Your task to perform on an android device: Search for "alienware area 51" on costco.com, select the first entry, add it to the cart, then select checkout. Image 0: 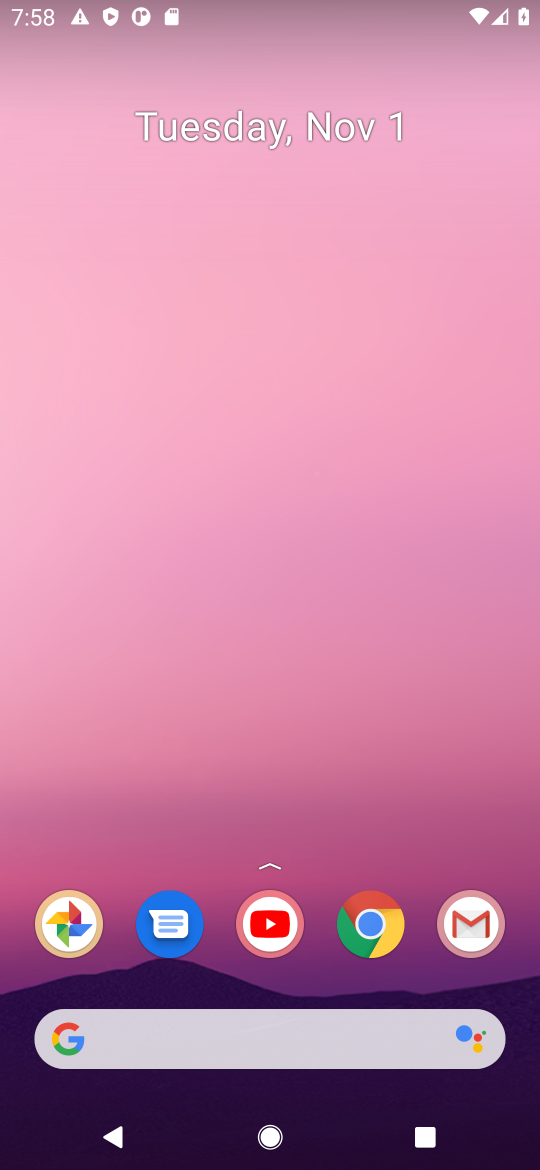
Step 0: click (93, 1035)
Your task to perform on an android device: Search for "alienware area 51" on costco.com, select the first entry, add it to the cart, then select checkout. Image 1: 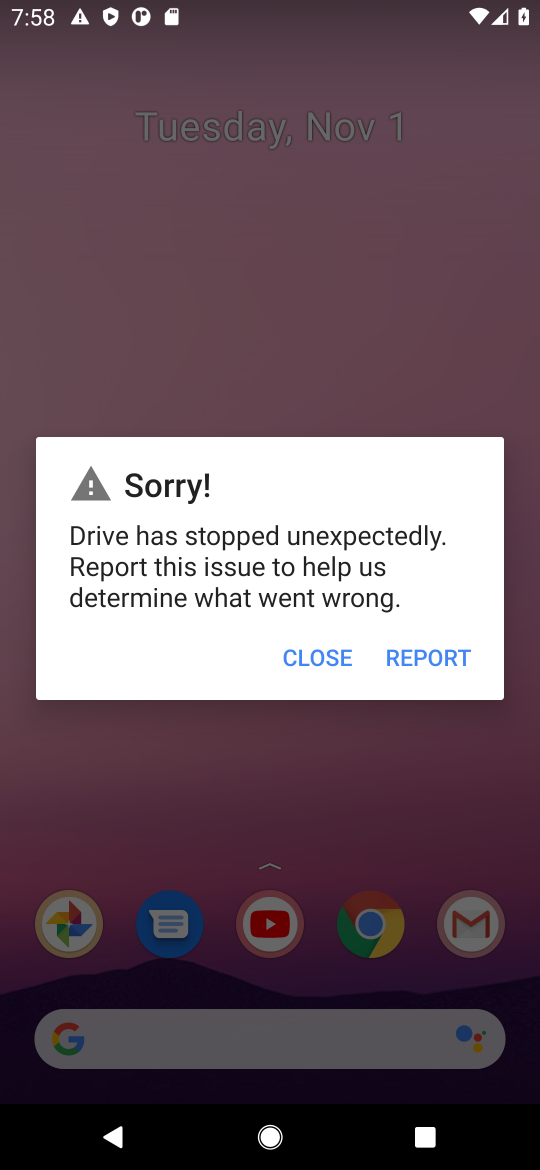
Step 1: press home button
Your task to perform on an android device: Search for "alienware area 51" on costco.com, select the first entry, add it to the cart, then select checkout. Image 2: 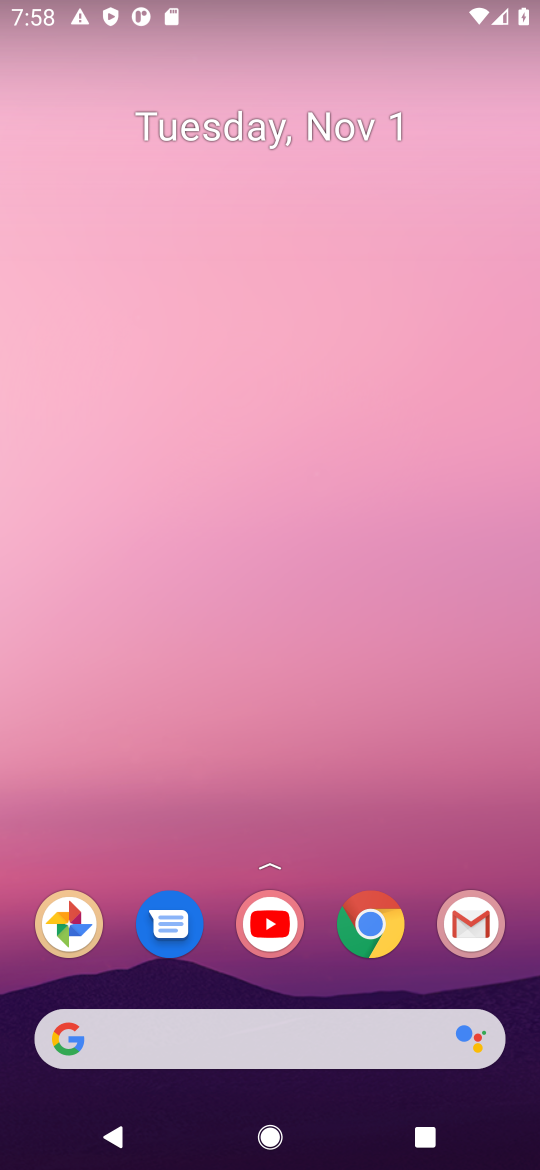
Step 2: click (117, 1039)
Your task to perform on an android device: Search for "alienware area 51" on costco.com, select the first entry, add it to the cart, then select checkout. Image 3: 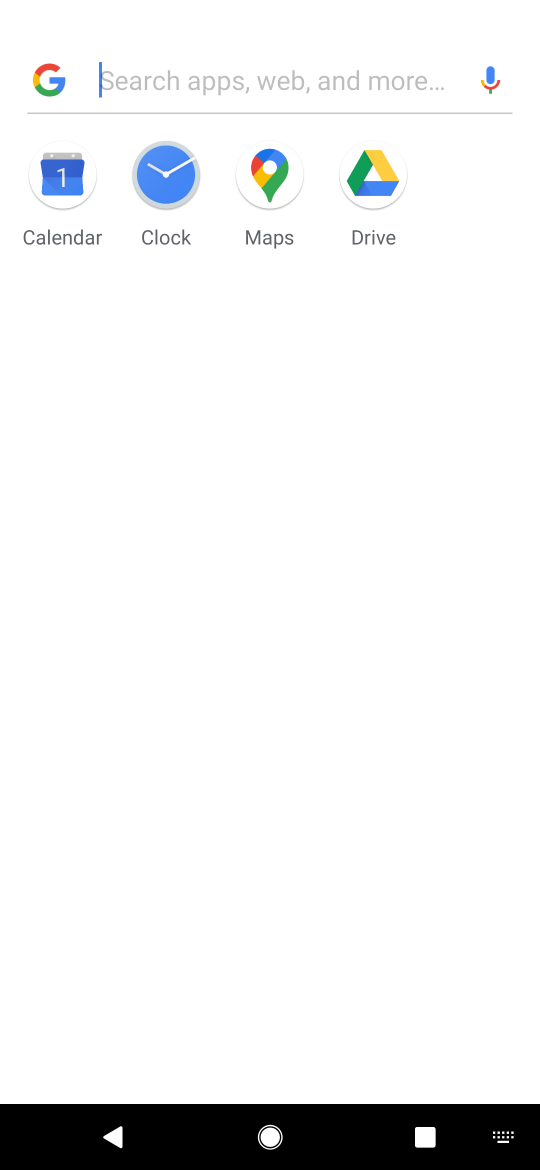
Step 3: type "costco.com"
Your task to perform on an android device: Search for "alienware area 51" on costco.com, select the first entry, add it to the cart, then select checkout. Image 4: 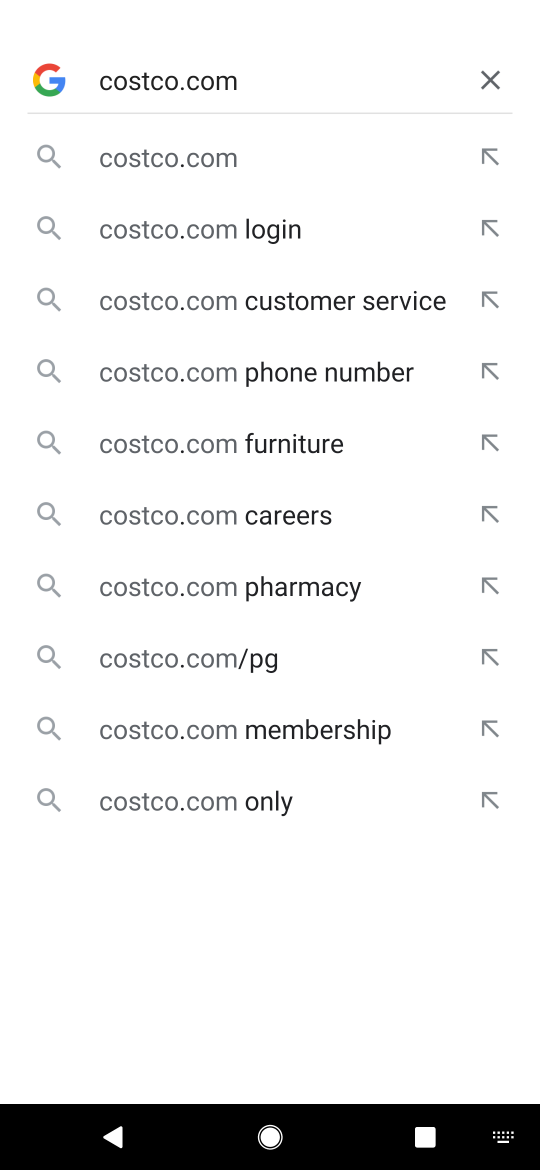
Step 4: press enter
Your task to perform on an android device: Search for "alienware area 51" on costco.com, select the first entry, add it to the cart, then select checkout. Image 5: 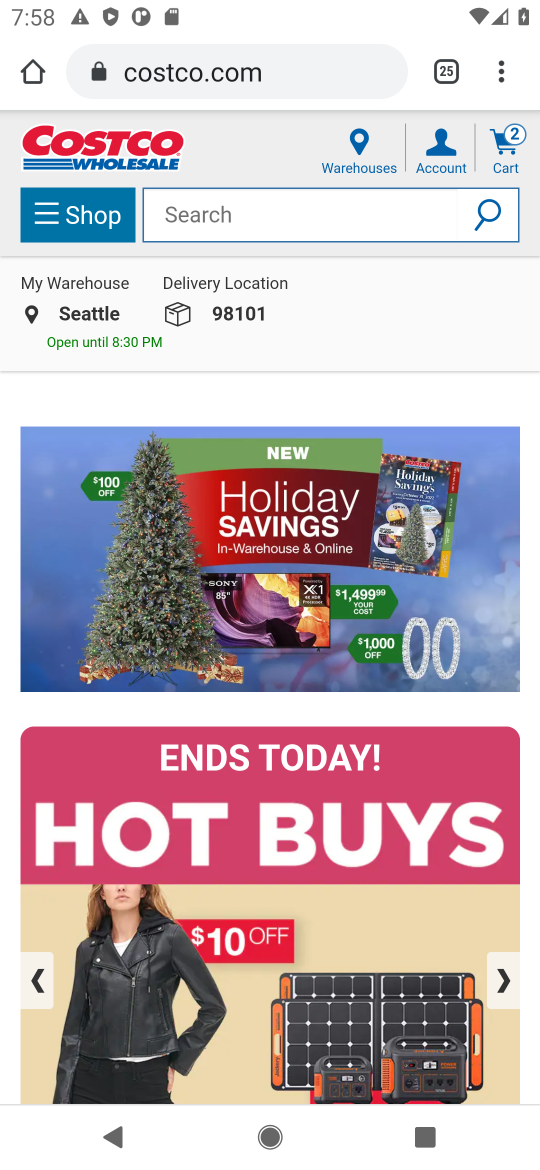
Step 5: click (183, 212)
Your task to perform on an android device: Search for "alienware area 51" on costco.com, select the first entry, add it to the cart, then select checkout. Image 6: 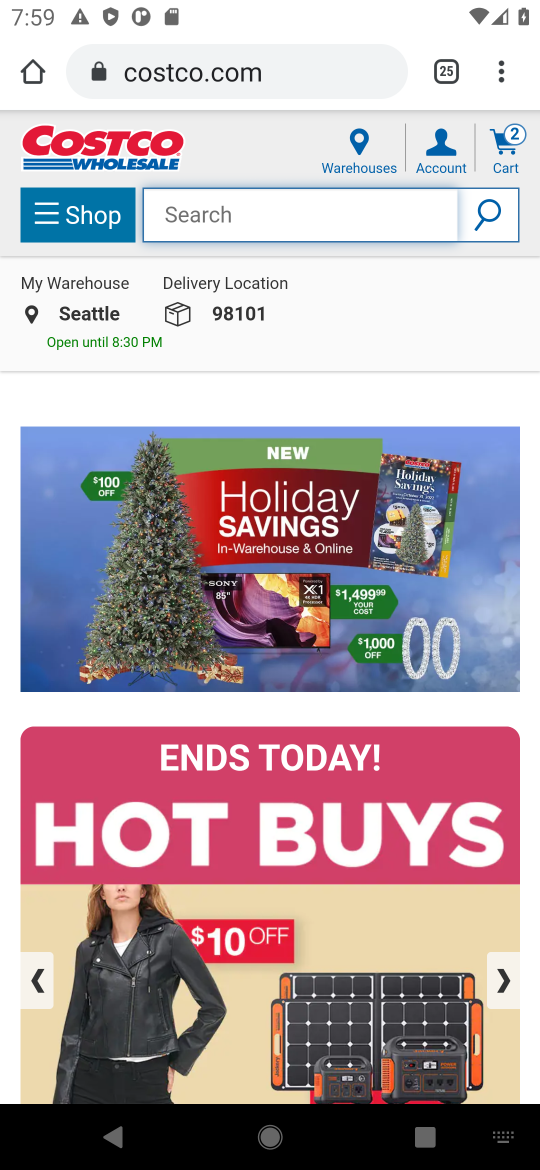
Step 6: type "alienware area 51"
Your task to perform on an android device: Search for "alienware area 51" on costco.com, select the first entry, add it to the cart, then select checkout. Image 7: 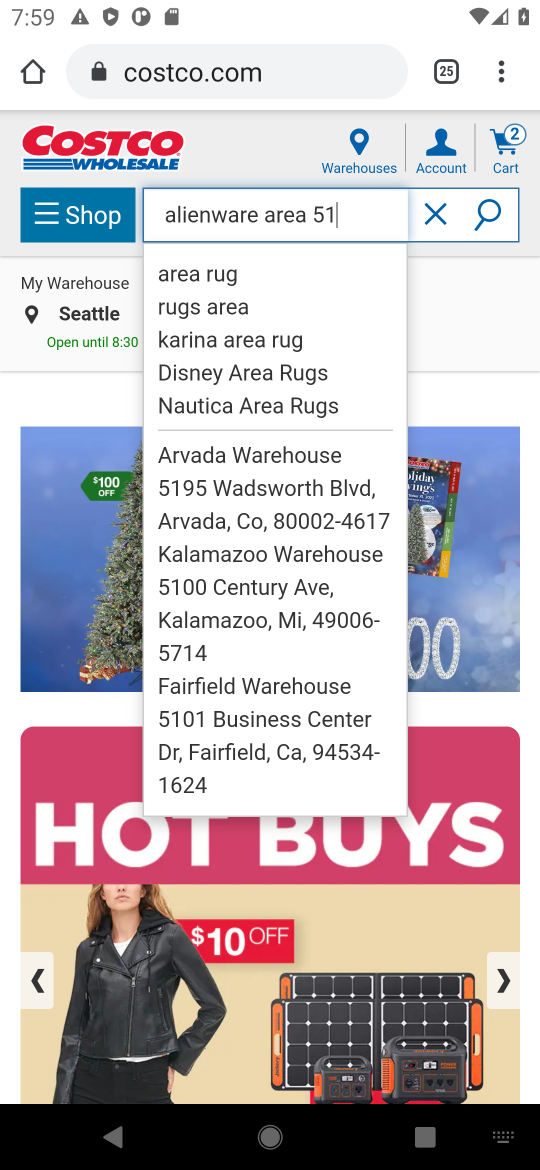
Step 7: click (485, 196)
Your task to perform on an android device: Search for "alienware area 51" on costco.com, select the first entry, add it to the cart, then select checkout. Image 8: 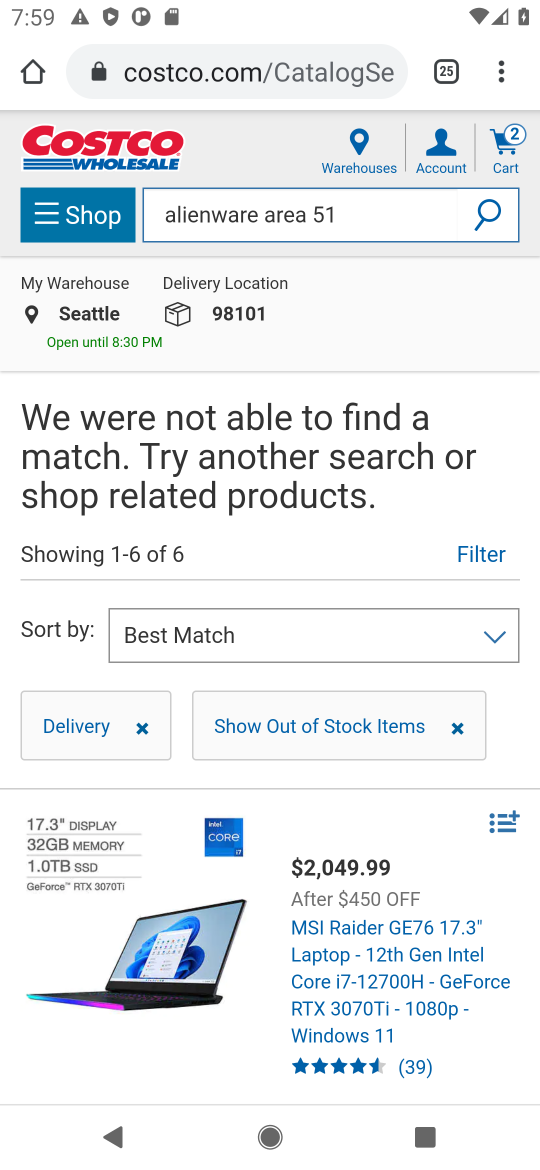
Step 8: task complete